Your task to perform on an android device: Empty the shopping cart on costco.com. Search for "logitech g933" on costco.com, select the first entry, and add it to the cart. Image 0: 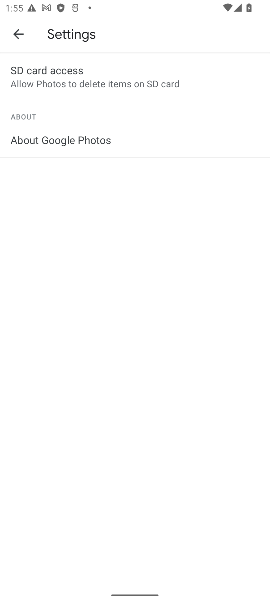
Step 0: press home button
Your task to perform on an android device: Empty the shopping cart on costco.com. Search for "logitech g933" on costco.com, select the first entry, and add it to the cart. Image 1: 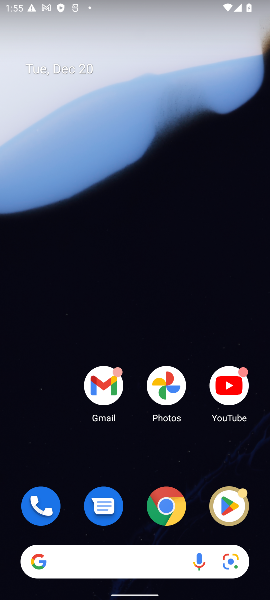
Step 1: click (161, 511)
Your task to perform on an android device: Empty the shopping cart on costco.com. Search for "logitech g933" on costco.com, select the first entry, and add it to the cart. Image 2: 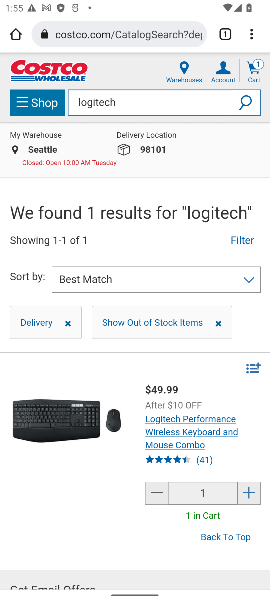
Step 2: click (128, 36)
Your task to perform on an android device: Empty the shopping cart on costco.com. Search for "logitech g933" on costco.com, select the first entry, and add it to the cart. Image 3: 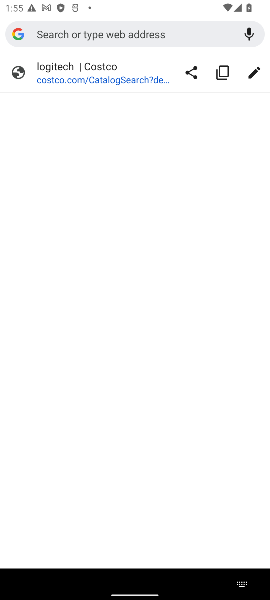
Step 3: click (115, 67)
Your task to perform on an android device: Empty the shopping cart on costco.com. Search for "logitech g933" on costco.com, select the first entry, and add it to the cart. Image 4: 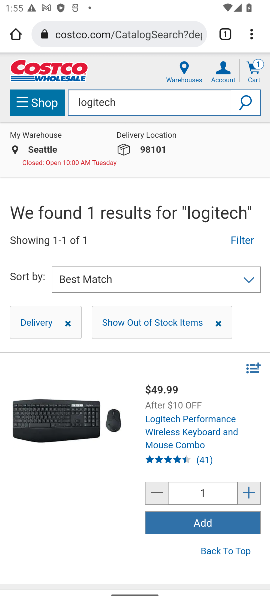
Step 4: click (255, 72)
Your task to perform on an android device: Empty the shopping cart on costco.com. Search for "logitech g933" on costco.com, select the first entry, and add it to the cart. Image 5: 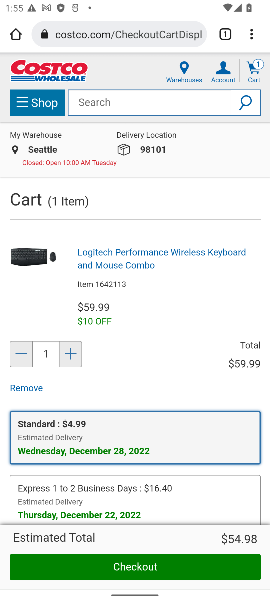
Step 5: click (26, 385)
Your task to perform on an android device: Empty the shopping cart on costco.com. Search for "logitech g933" on costco.com, select the first entry, and add it to the cart. Image 6: 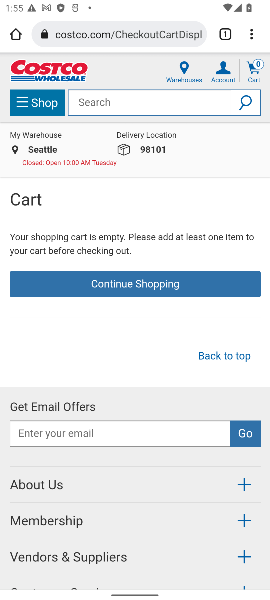
Step 6: click (155, 107)
Your task to perform on an android device: Empty the shopping cart on costco.com. Search for "logitech g933" on costco.com, select the first entry, and add it to the cart. Image 7: 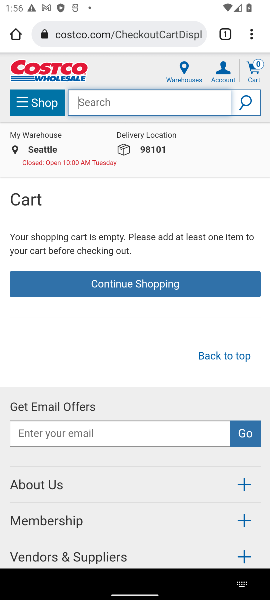
Step 7: type "LOGITECH G933"
Your task to perform on an android device: Empty the shopping cart on costco.com. Search for "logitech g933" on costco.com, select the first entry, and add it to the cart. Image 8: 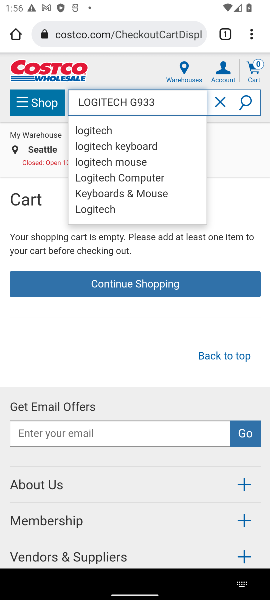
Step 8: click (88, 128)
Your task to perform on an android device: Empty the shopping cart on costco.com. Search for "logitech g933" on costco.com, select the first entry, and add it to the cart. Image 9: 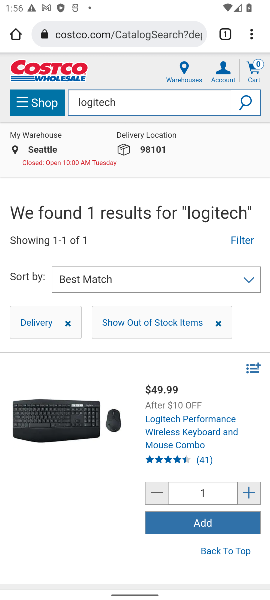
Step 9: click (192, 518)
Your task to perform on an android device: Empty the shopping cart on costco.com. Search for "logitech g933" on costco.com, select the first entry, and add it to the cart. Image 10: 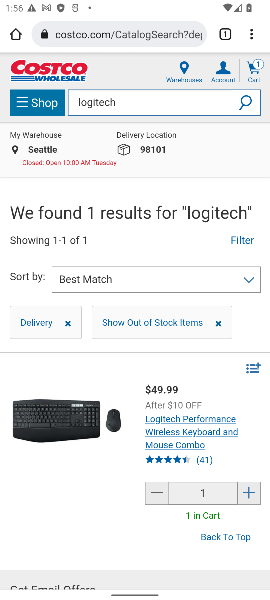
Step 10: task complete